Your task to perform on an android device: toggle data saver in the chrome app Image 0: 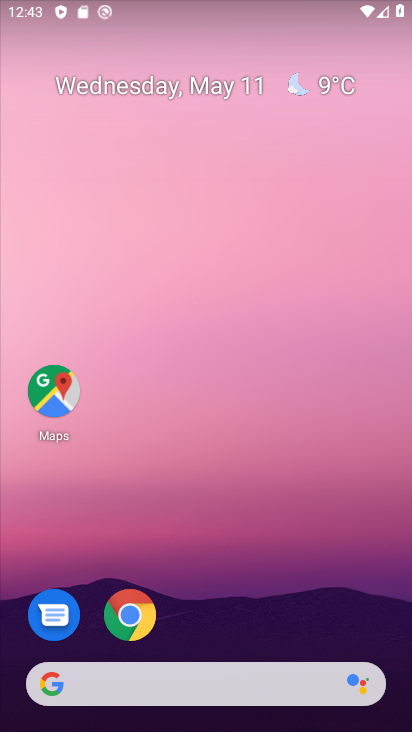
Step 0: click (142, 640)
Your task to perform on an android device: toggle data saver in the chrome app Image 1: 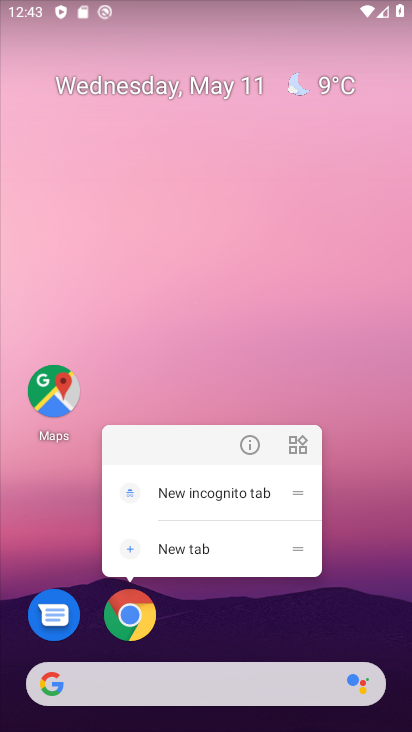
Step 1: click (139, 637)
Your task to perform on an android device: toggle data saver in the chrome app Image 2: 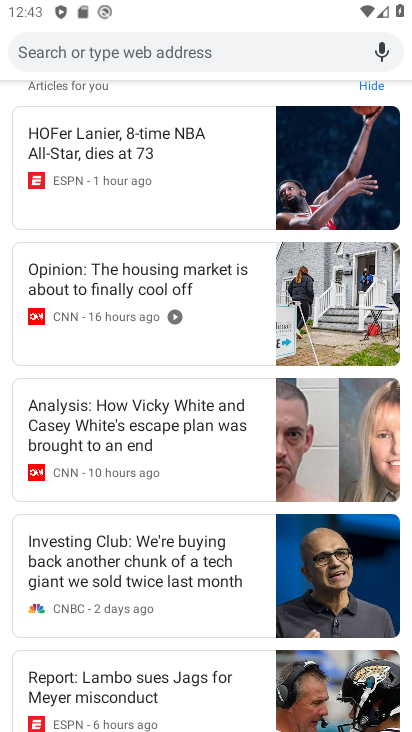
Step 2: drag from (317, 219) to (315, 719)
Your task to perform on an android device: toggle data saver in the chrome app Image 3: 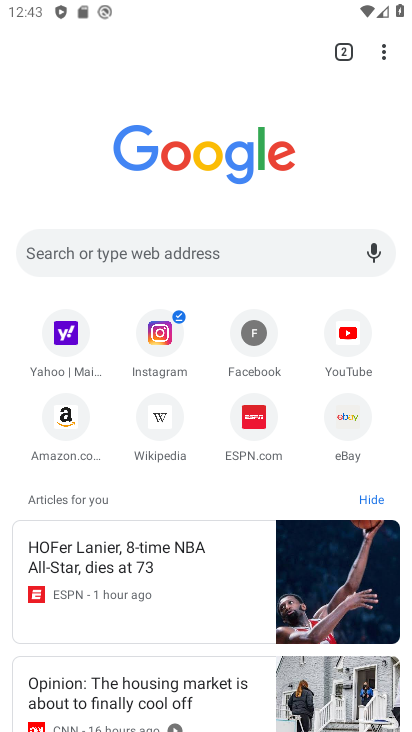
Step 3: click (383, 64)
Your task to perform on an android device: toggle data saver in the chrome app Image 4: 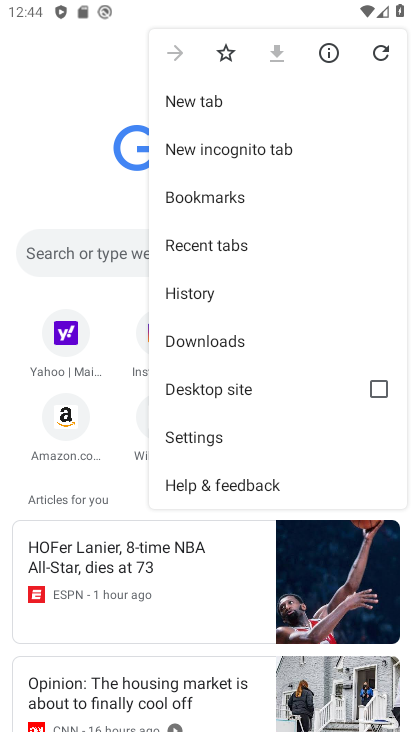
Step 4: click (228, 426)
Your task to perform on an android device: toggle data saver in the chrome app Image 5: 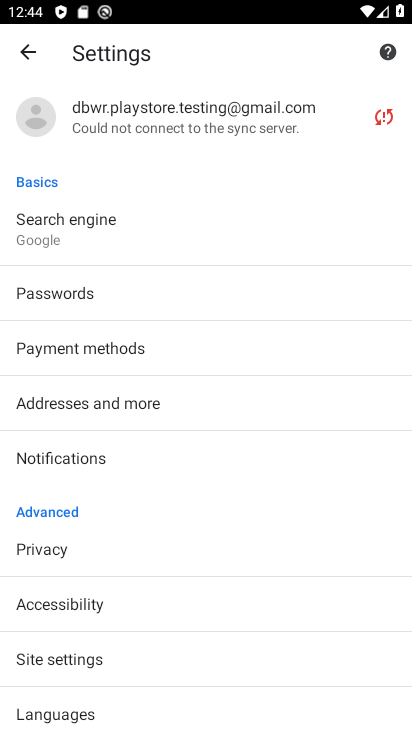
Step 5: drag from (186, 569) to (198, 419)
Your task to perform on an android device: toggle data saver in the chrome app Image 6: 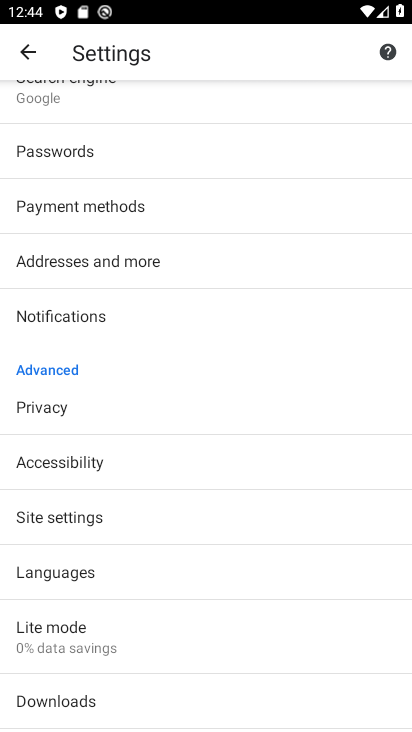
Step 6: click (137, 615)
Your task to perform on an android device: toggle data saver in the chrome app Image 7: 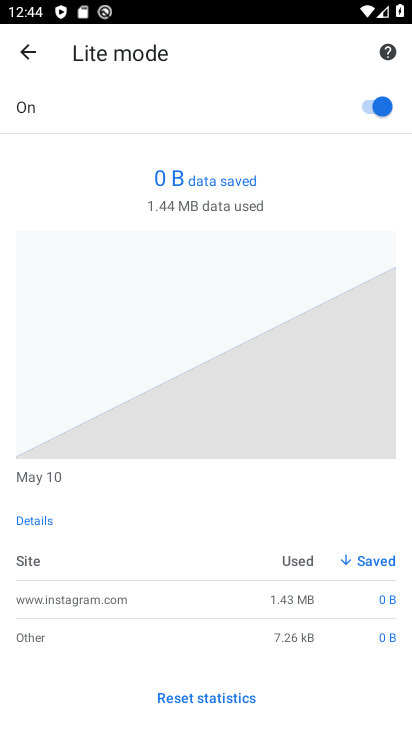
Step 7: click (382, 109)
Your task to perform on an android device: toggle data saver in the chrome app Image 8: 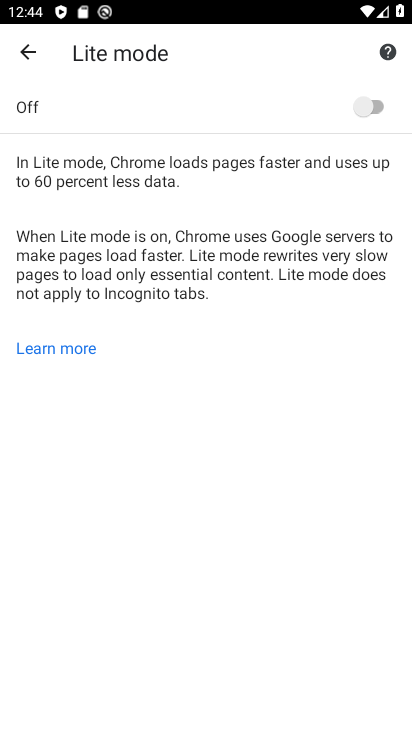
Step 8: task complete